Your task to perform on an android device: Open the map Image 0: 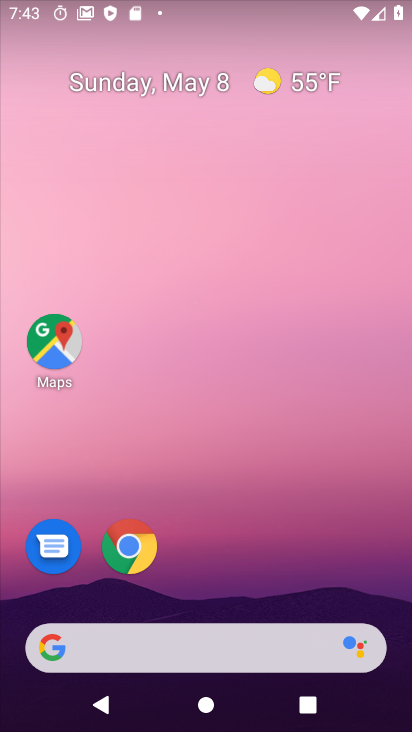
Step 0: click (59, 352)
Your task to perform on an android device: Open the map Image 1: 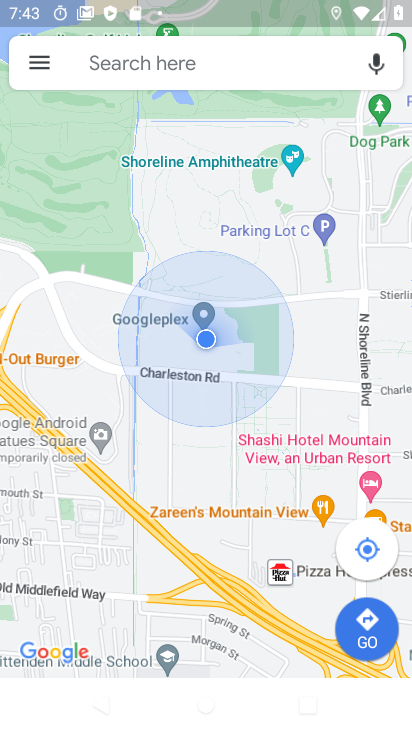
Step 1: task complete